Your task to perform on an android device: Open the stopwatch Image 0: 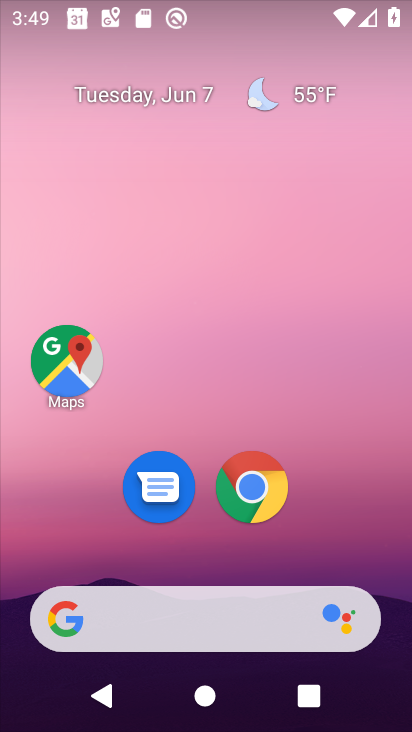
Step 0: drag from (239, 555) to (206, 132)
Your task to perform on an android device: Open the stopwatch Image 1: 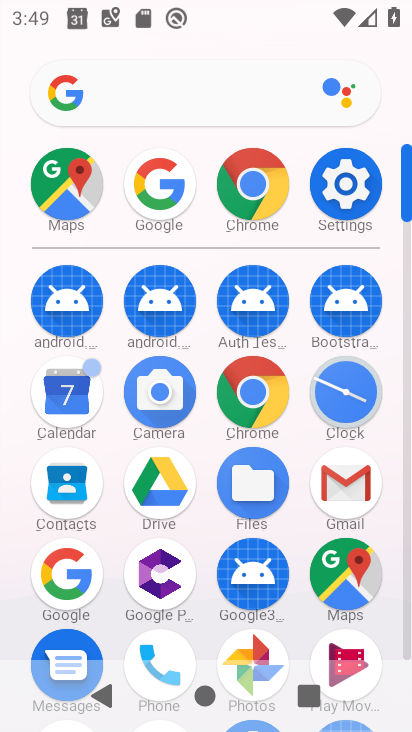
Step 1: click (347, 397)
Your task to perform on an android device: Open the stopwatch Image 2: 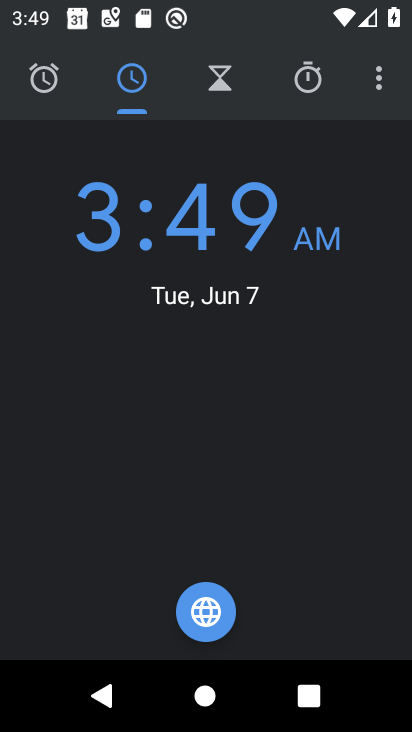
Step 2: click (310, 76)
Your task to perform on an android device: Open the stopwatch Image 3: 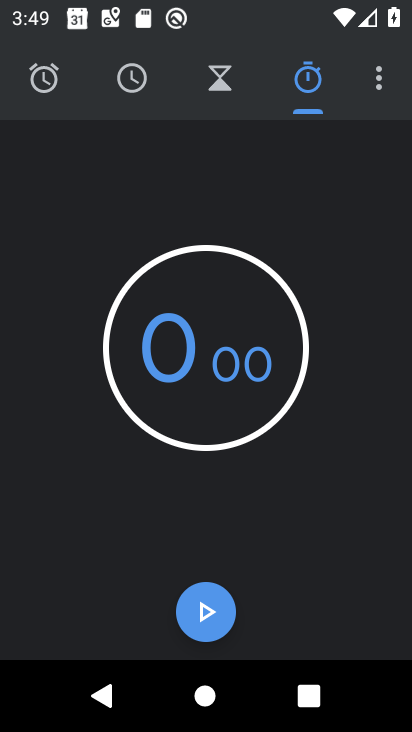
Step 3: click (209, 612)
Your task to perform on an android device: Open the stopwatch Image 4: 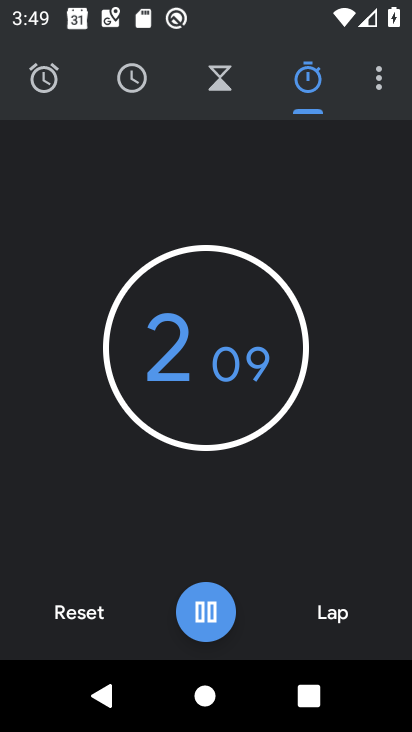
Step 4: task complete